Your task to perform on an android device: What is the recent news? Image 0: 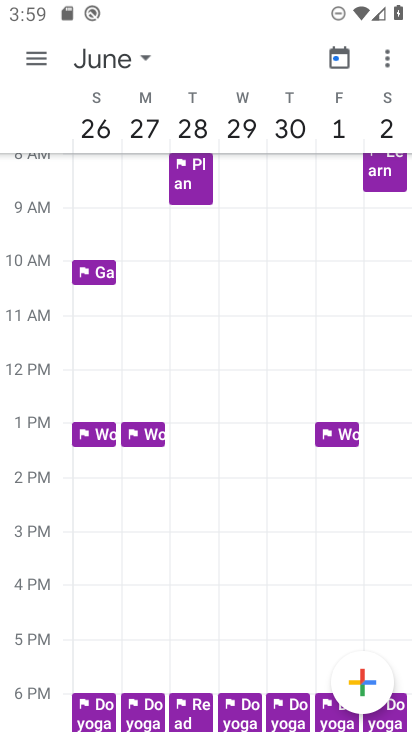
Step 0: press back button
Your task to perform on an android device: What is the recent news? Image 1: 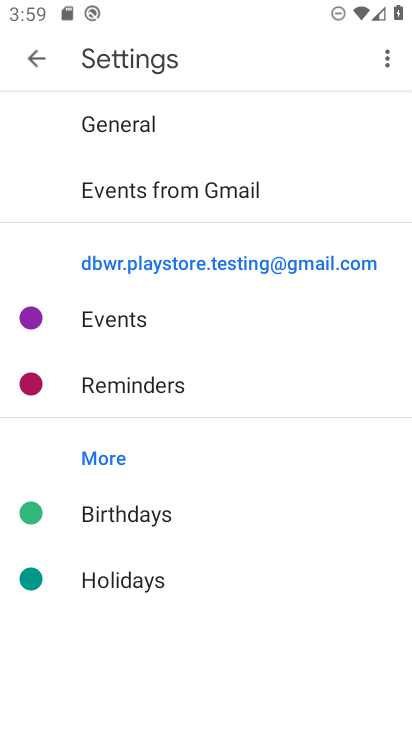
Step 1: press home button
Your task to perform on an android device: What is the recent news? Image 2: 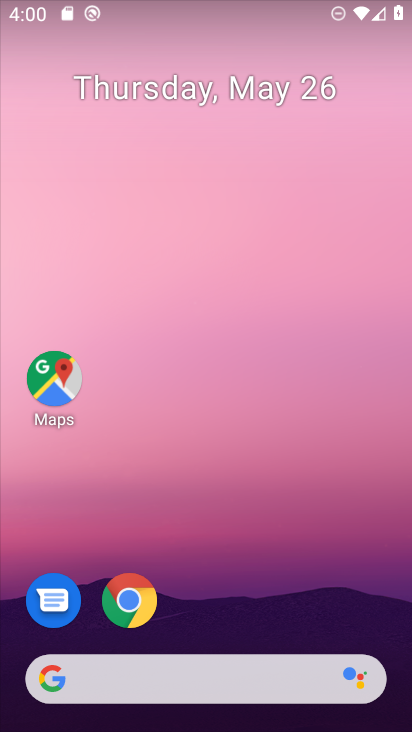
Step 2: drag from (273, 608) to (223, 53)
Your task to perform on an android device: What is the recent news? Image 3: 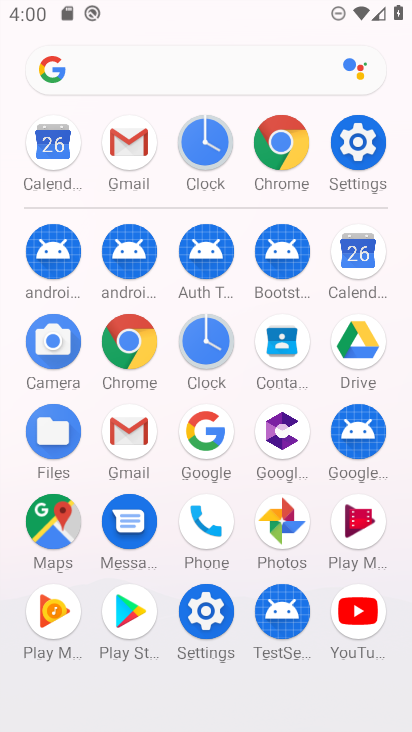
Step 3: click (124, 337)
Your task to perform on an android device: What is the recent news? Image 4: 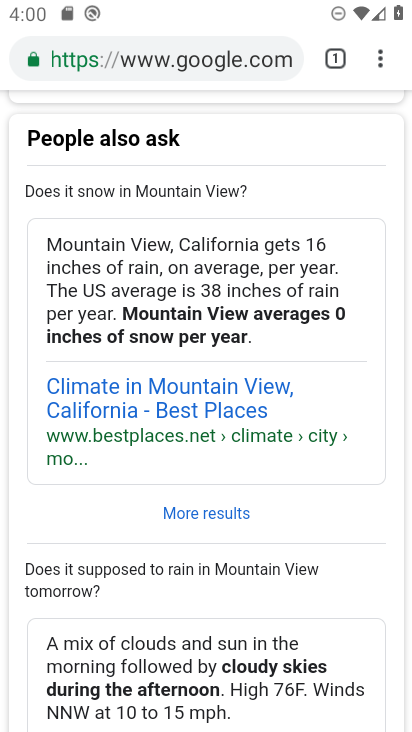
Step 4: click (213, 57)
Your task to perform on an android device: What is the recent news? Image 5: 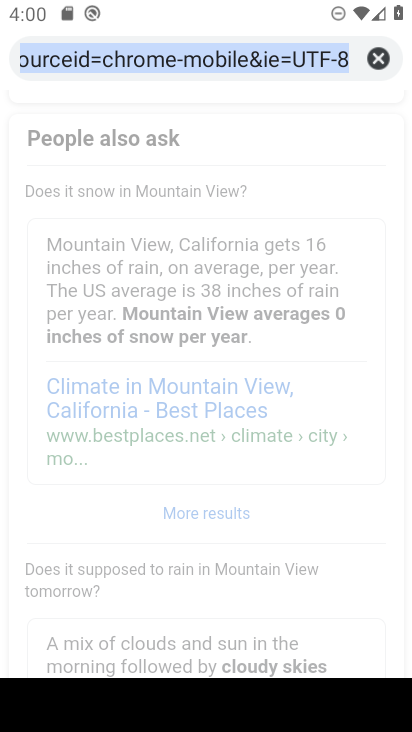
Step 5: click (381, 55)
Your task to perform on an android device: What is the recent news? Image 6: 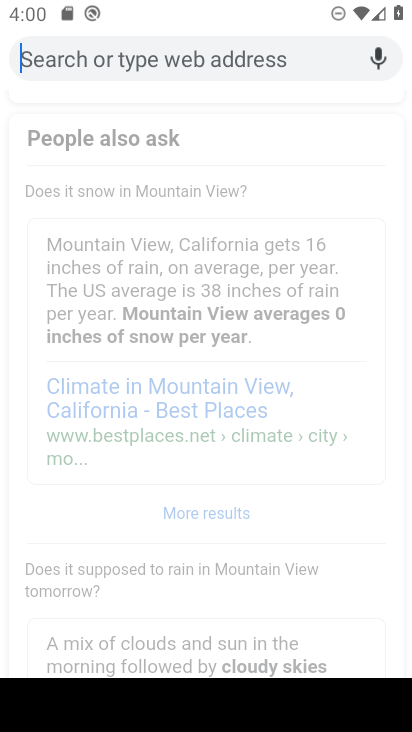
Step 6: type "What is the recent news?"
Your task to perform on an android device: What is the recent news? Image 7: 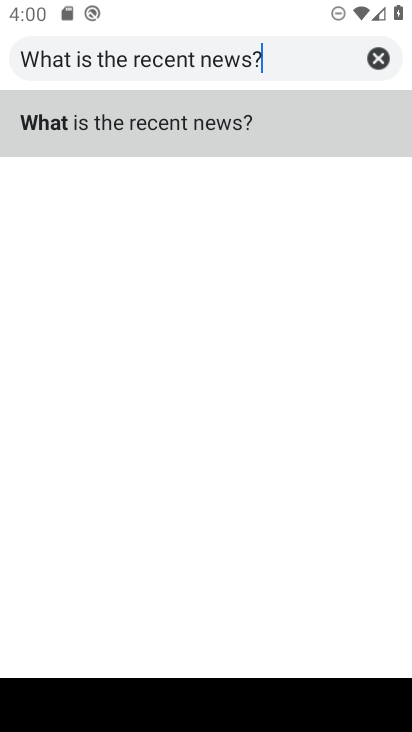
Step 7: type ""
Your task to perform on an android device: What is the recent news? Image 8: 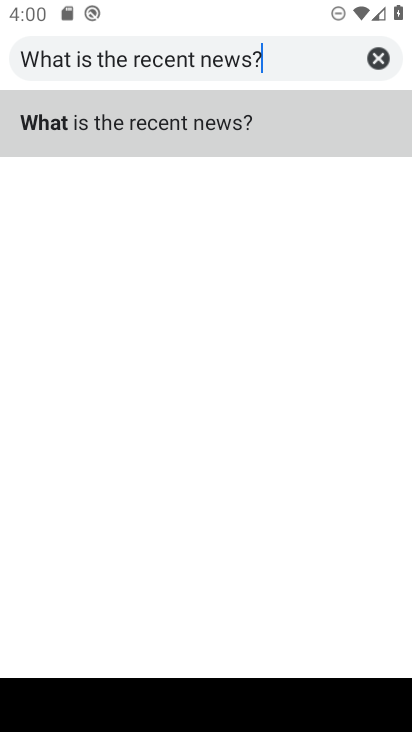
Step 8: click (219, 120)
Your task to perform on an android device: What is the recent news? Image 9: 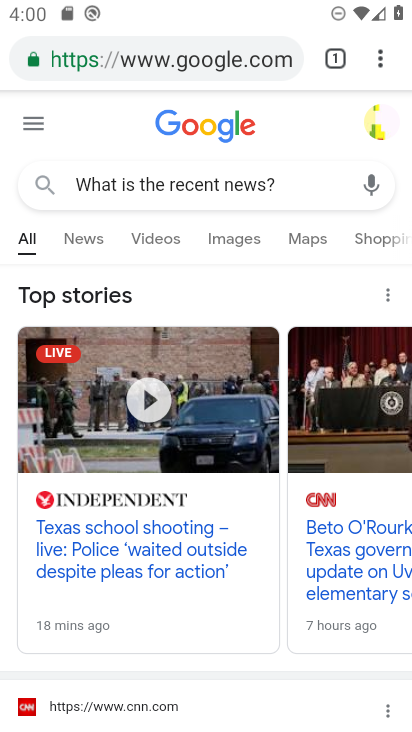
Step 9: drag from (350, 503) to (160, 499)
Your task to perform on an android device: What is the recent news? Image 10: 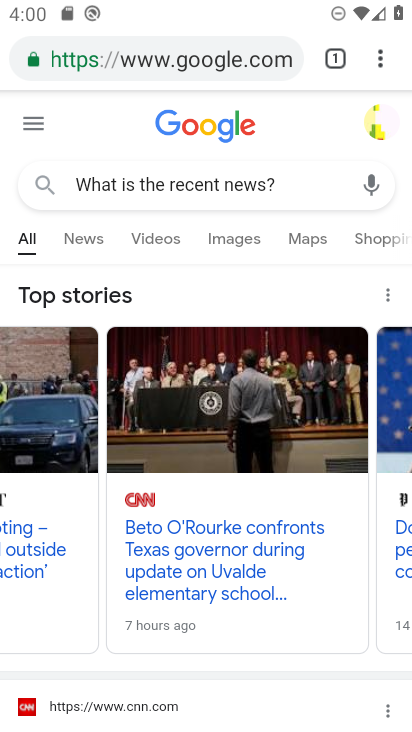
Step 10: drag from (321, 418) to (79, 443)
Your task to perform on an android device: What is the recent news? Image 11: 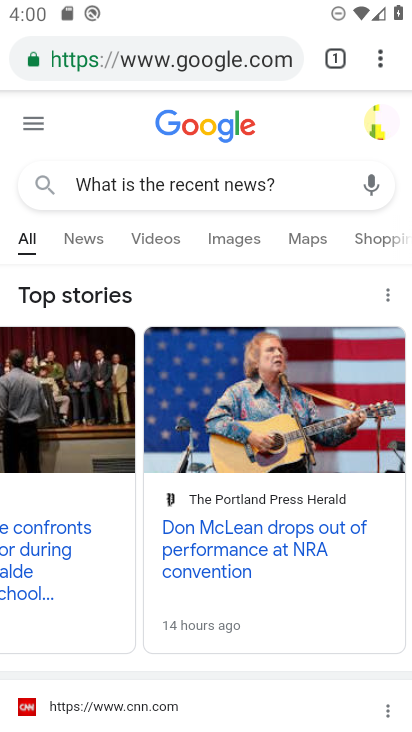
Step 11: drag from (297, 430) to (76, 430)
Your task to perform on an android device: What is the recent news? Image 12: 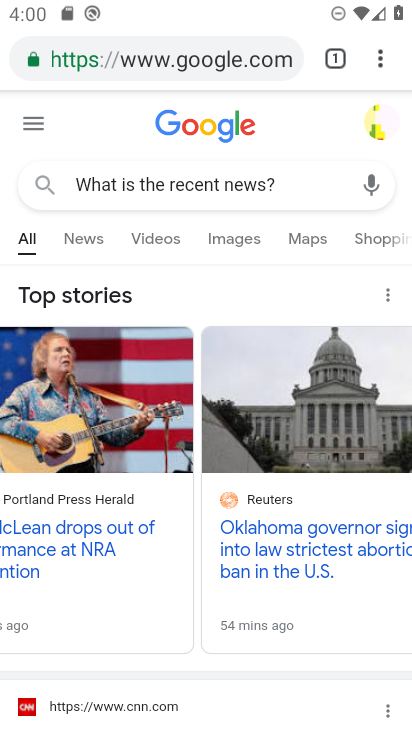
Step 12: drag from (341, 413) to (81, 399)
Your task to perform on an android device: What is the recent news? Image 13: 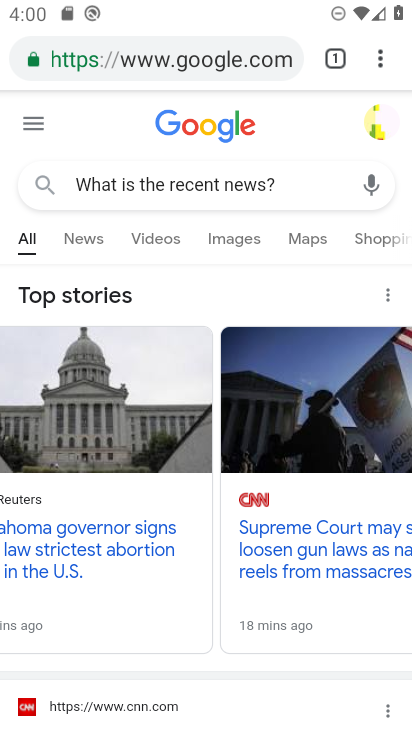
Step 13: drag from (251, 387) to (77, 408)
Your task to perform on an android device: What is the recent news? Image 14: 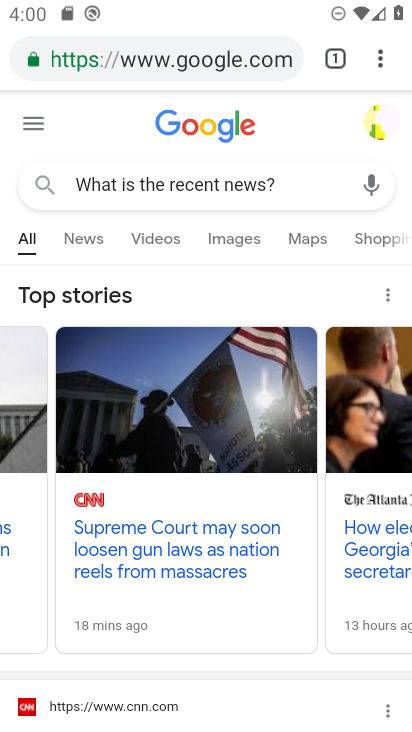
Step 14: drag from (353, 396) to (100, 411)
Your task to perform on an android device: What is the recent news? Image 15: 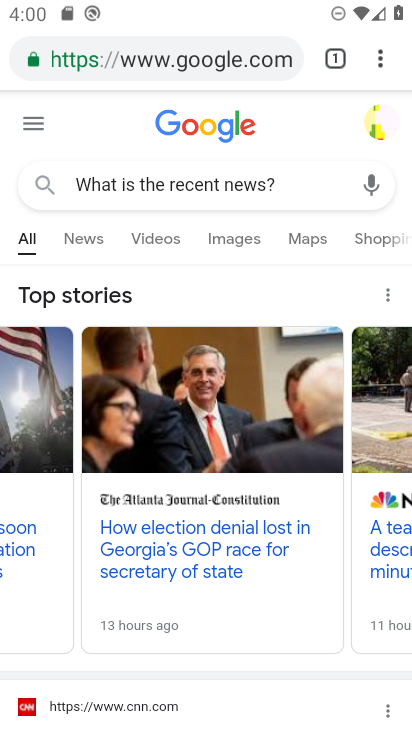
Step 15: drag from (324, 400) to (109, 402)
Your task to perform on an android device: What is the recent news? Image 16: 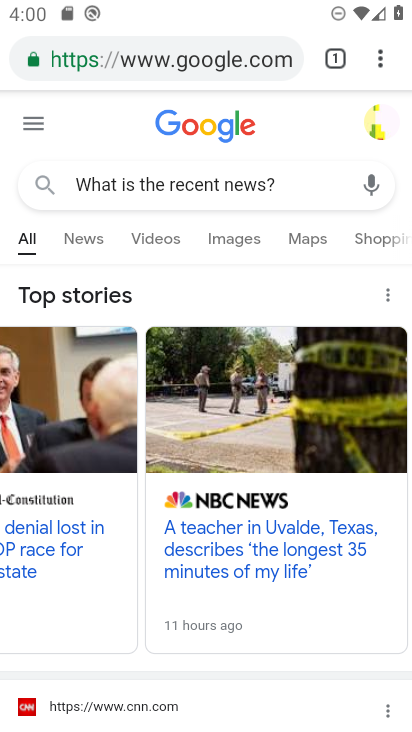
Step 16: drag from (334, 389) to (78, 396)
Your task to perform on an android device: What is the recent news? Image 17: 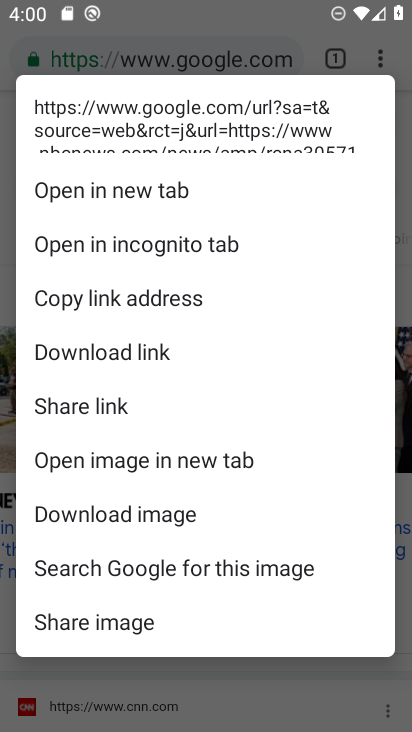
Step 17: click (235, 697)
Your task to perform on an android device: What is the recent news? Image 18: 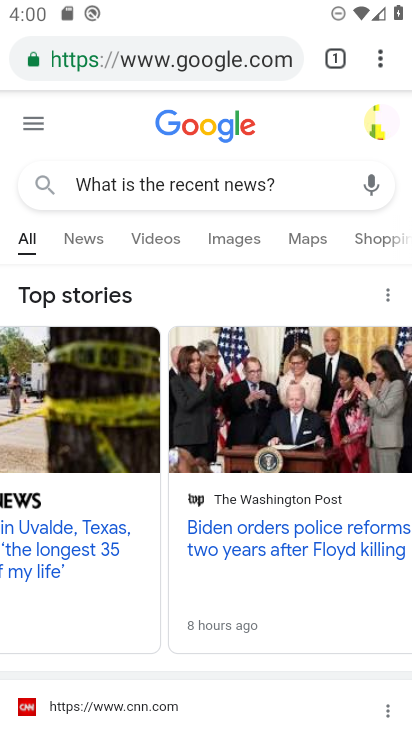
Step 18: task complete